Your task to perform on an android device: Go to Wikipedia Image 0: 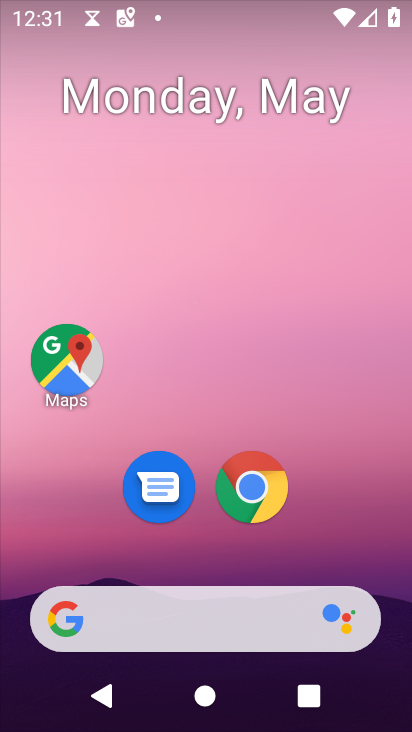
Step 0: click (272, 484)
Your task to perform on an android device: Go to Wikipedia Image 1: 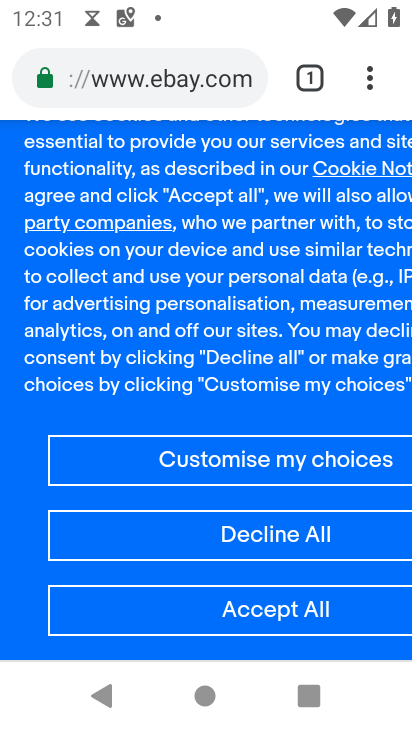
Step 1: click (168, 76)
Your task to perform on an android device: Go to Wikipedia Image 2: 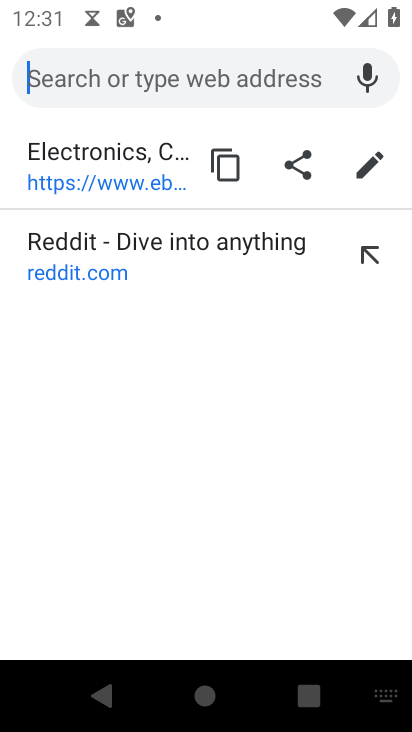
Step 2: type "wikipedia"
Your task to perform on an android device: Go to Wikipedia Image 3: 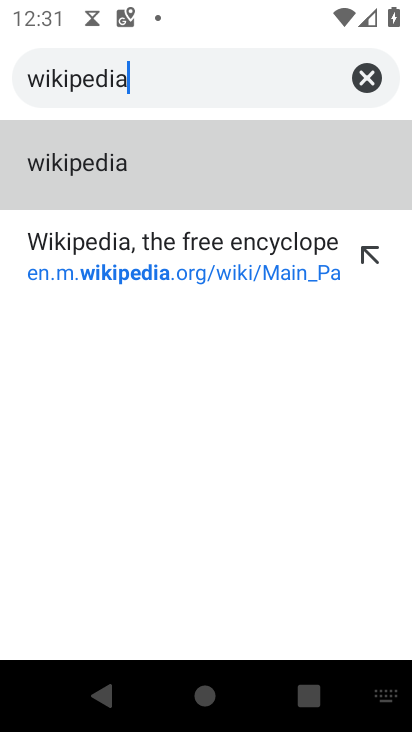
Step 3: click (72, 161)
Your task to perform on an android device: Go to Wikipedia Image 4: 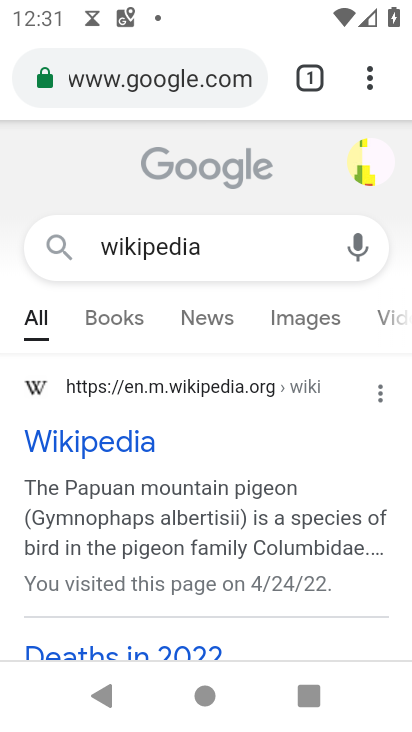
Step 4: click (75, 439)
Your task to perform on an android device: Go to Wikipedia Image 5: 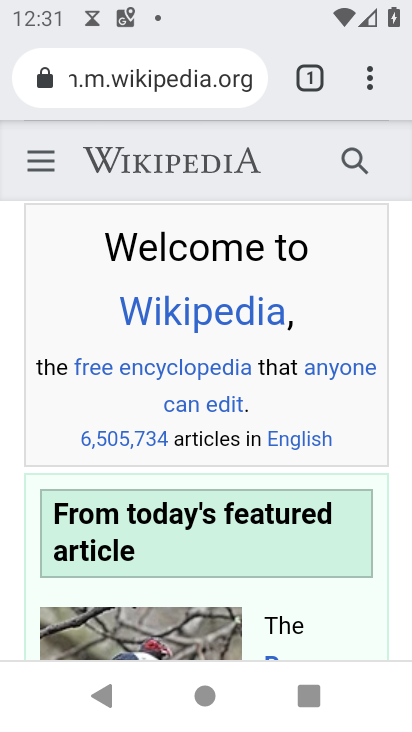
Step 5: task complete